Your task to perform on an android device: toggle airplane mode Image 0: 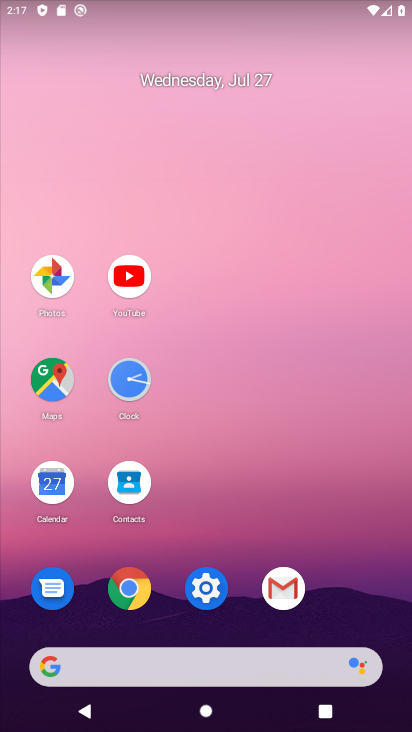
Step 0: click (209, 588)
Your task to perform on an android device: toggle airplane mode Image 1: 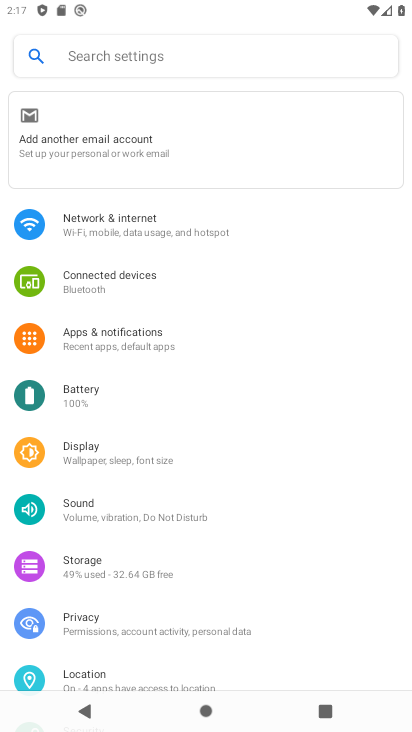
Step 1: click (100, 213)
Your task to perform on an android device: toggle airplane mode Image 2: 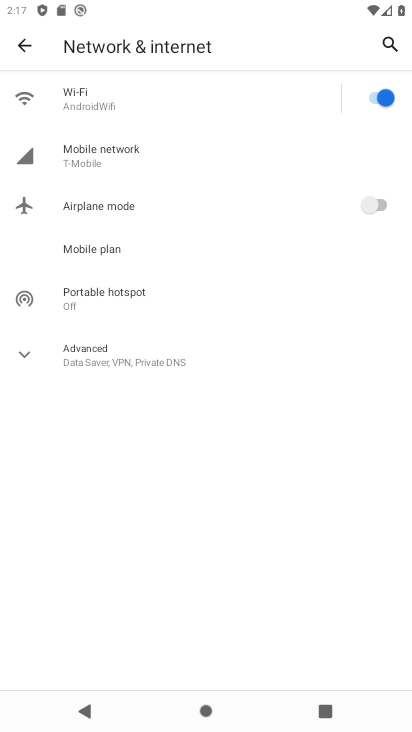
Step 2: click (362, 203)
Your task to perform on an android device: toggle airplane mode Image 3: 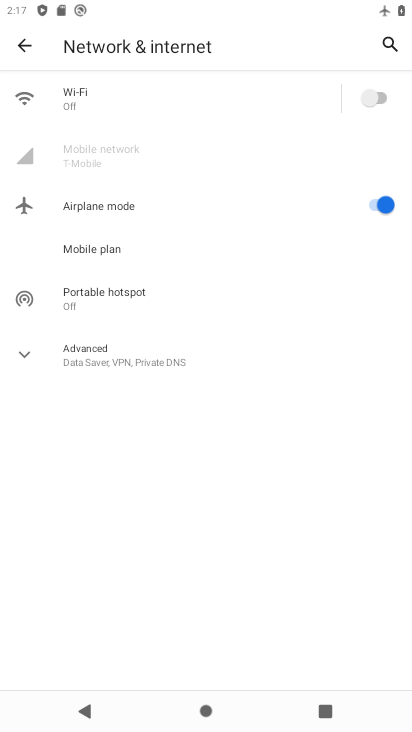
Step 3: task complete